Your task to perform on an android device: turn on showing notifications on the lock screen Image 0: 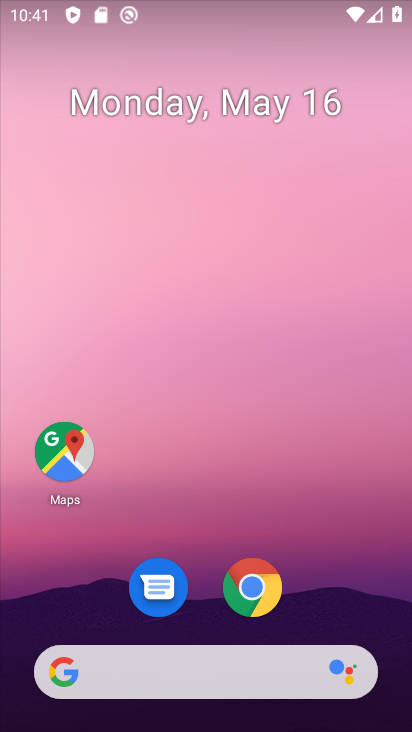
Step 0: drag from (384, 669) to (288, 139)
Your task to perform on an android device: turn on showing notifications on the lock screen Image 1: 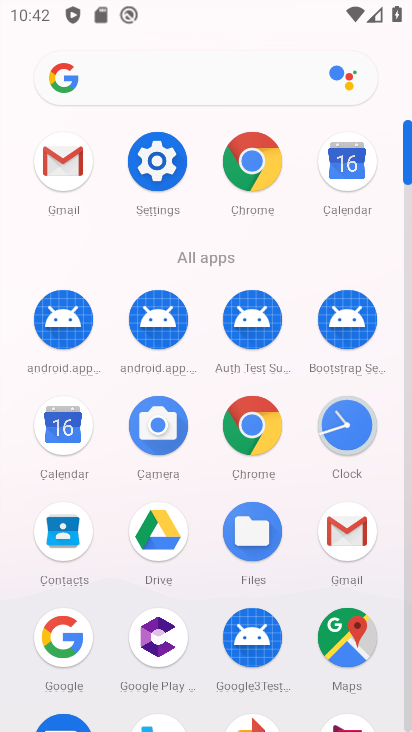
Step 1: click (151, 154)
Your task to perform on an android device: turn on showing notifications on the lock screen Image 2: 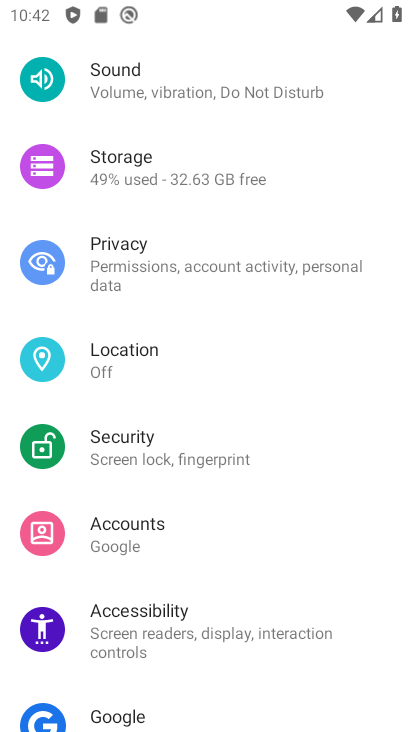
Step 2: drag from (201, 161) to (211, 669)
Your task to perform on an android device: turn on showing notifications on the lock screen Image 3: 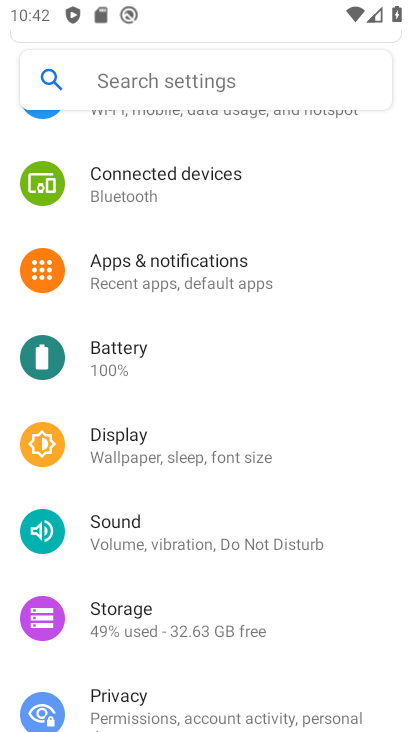
Step 3: click (227, 282)
Your task to perform on an android device: turn on showing notifications on the lock screen Image 4: 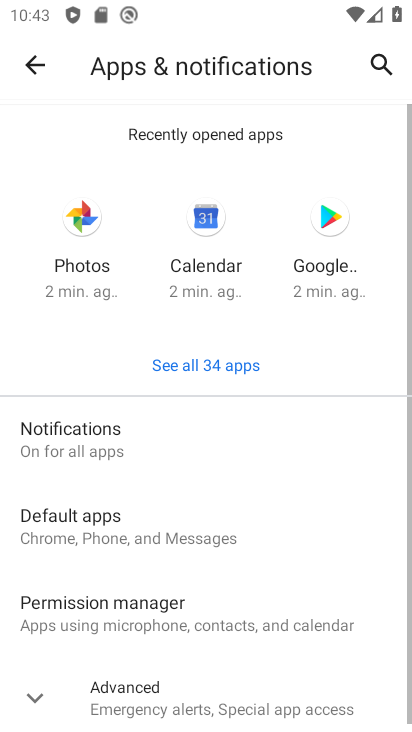
Step 4: click (120, 447)
Your task to perform on an android device: turn on showing notifications on the lock screen Image 5: 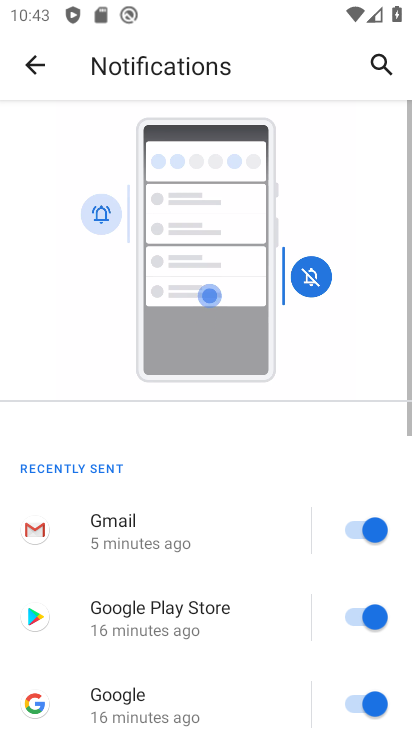
Step 5: drag from (142, 695) to (243, 90)
Your task to perform on an android device: turn on showing notifications on the lock screen Image 6: 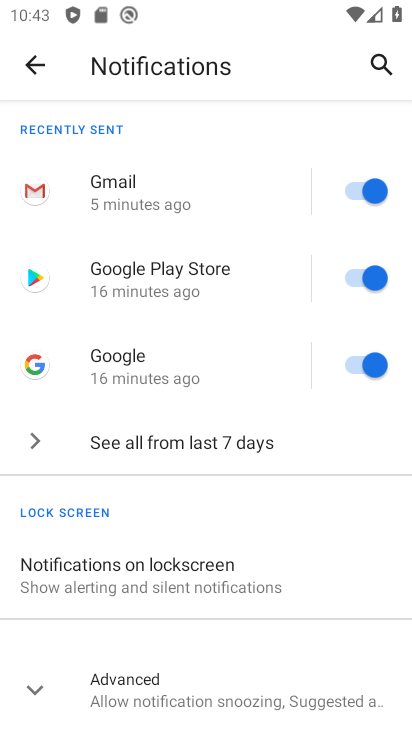
Step 6: click (188, 568)
Your task to perform on an android device: turn on showing notifications on the lock screen Image 7: 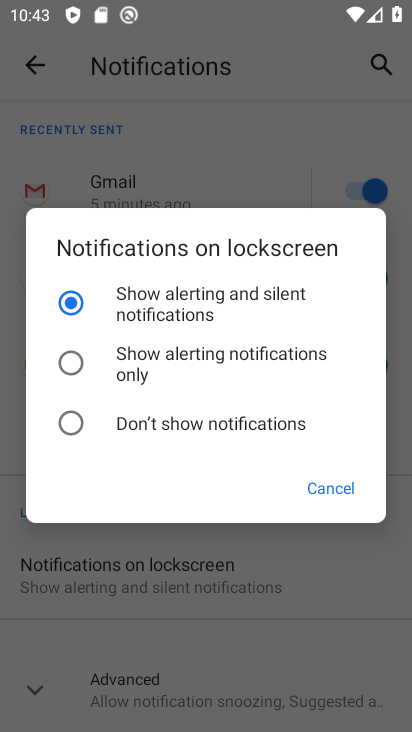
Step 7: task complete